Your task to perform on an android device: turn smart compose on in the gmail app Image 0: 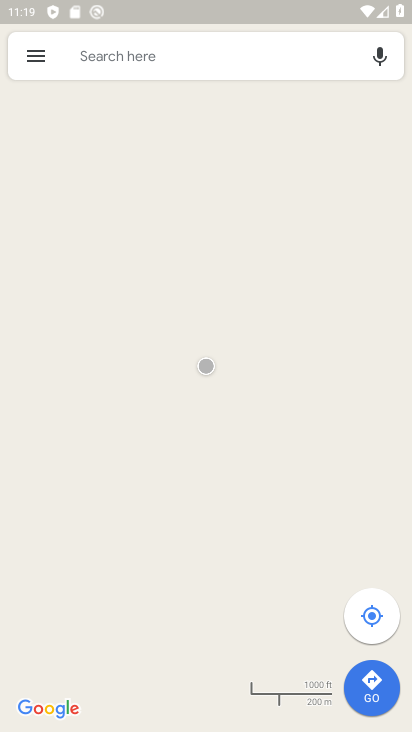
Step 0: press home button
Your task to perform on an android device: turn smart compose on in the gmail app Image 1: 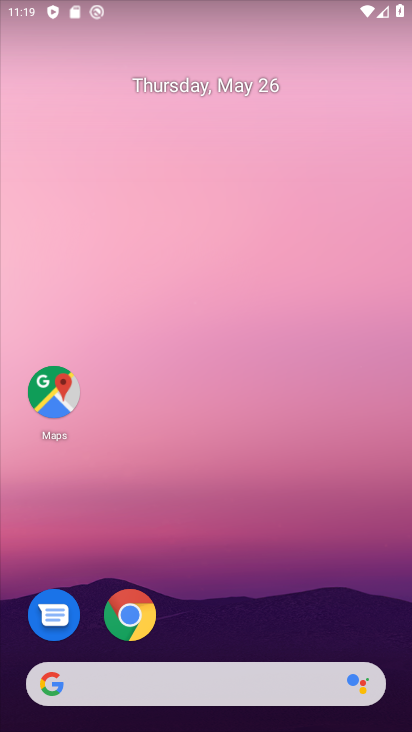
Step 1: drag from (210, 620) to (188, 285)
Your task to perform on an android device: turn smart compose on in the gmail app Image 2: 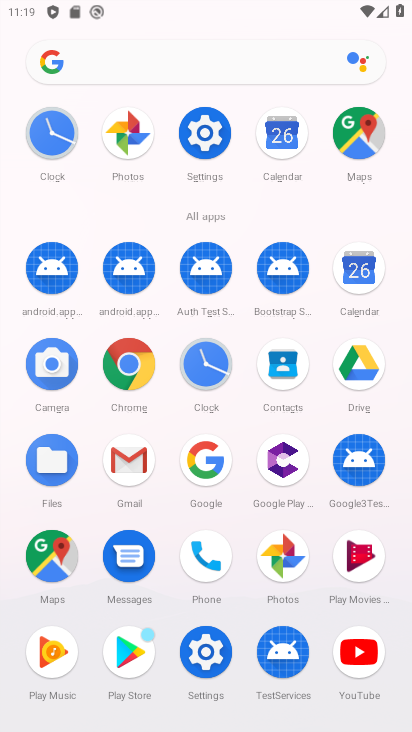
Step 2: click (133, 466)
Your task to perform on an android device: turn smart compose on in the gmail app Image 3: 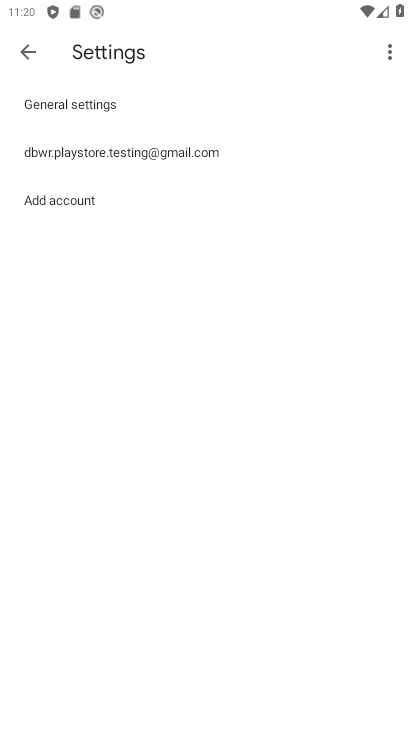
Step 3: click (202, 162)
Your task to perform on an android device: turn smart compose on in the gmail app Image 4: 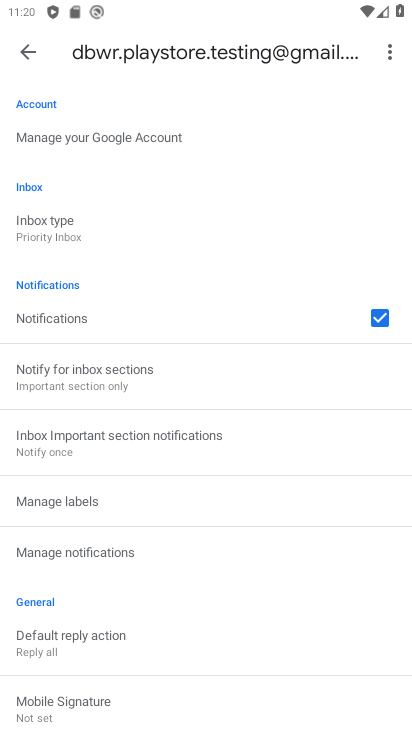
Step 4: task complete